Your task to perform on an android device: Do I have any events tomorrow? Image 0: 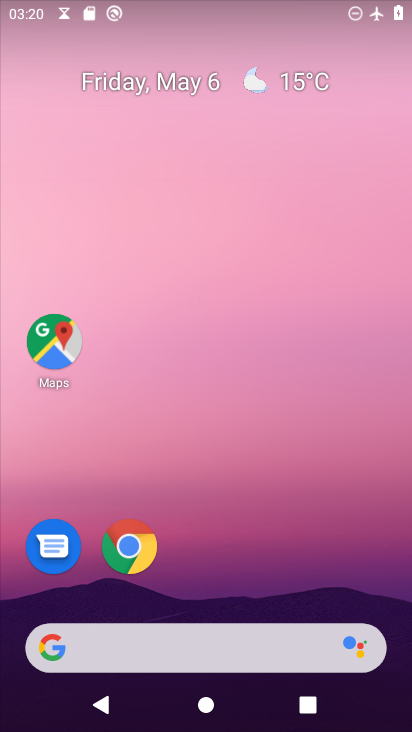
Step 0: click (180, 79)
Your task to perform on an android device: Do I have any events tomorrow? Image 1: 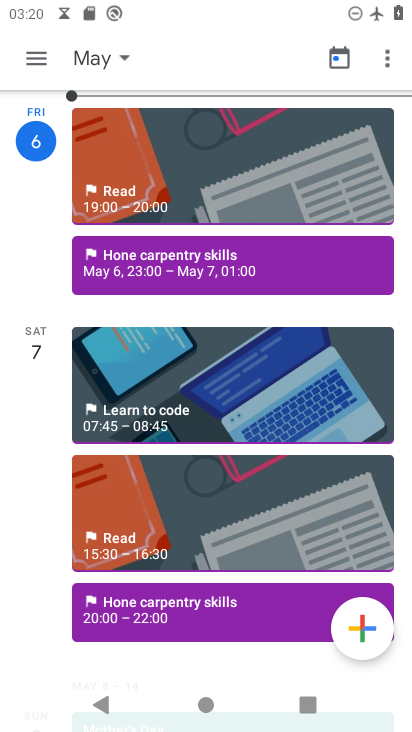
Step 1: drag from (163, 515) to (185, 207)
Your task to perform on an android device: Do I have any events tomorrow? Image 2: 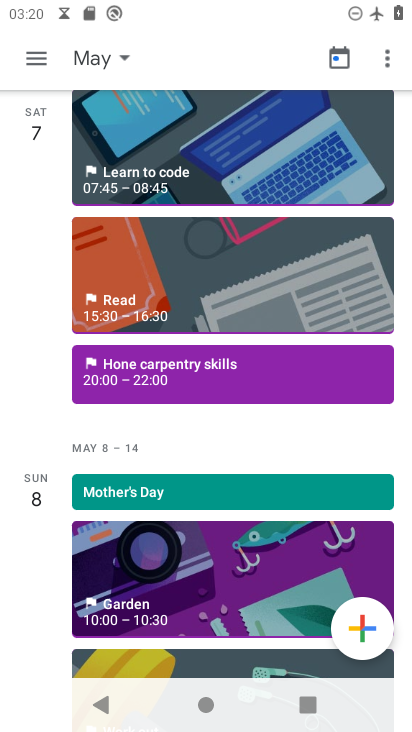
Step 2: click (44, 54)
Your task to perform on an android device: Do I have any events tomorrow? Image 3: 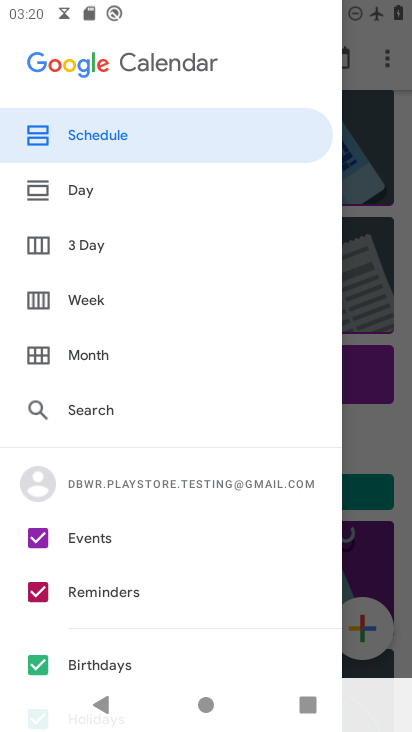
Step 3: click (45, 591)
Your task to perform on an android device: Do I have any events tomorrow? Image 4: 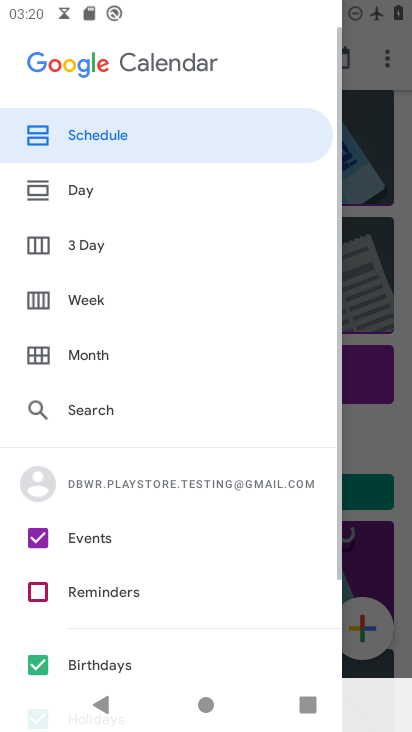
Step 4: click (37, 669)
Your task to perform on an android device: Do I have any events tomorrow? Image 5: 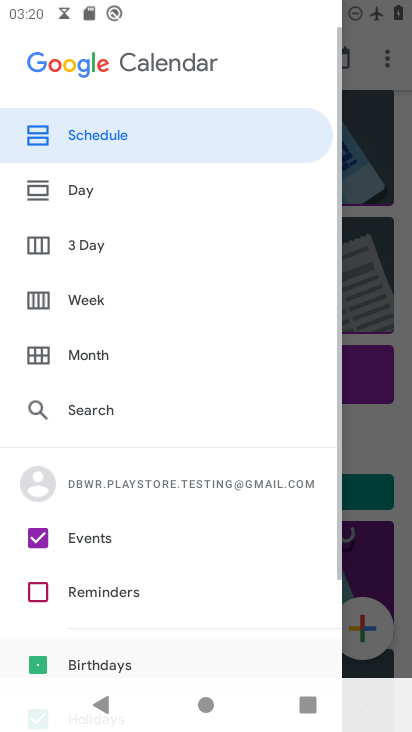
Step 5: click (224, 626)
Your task to perform on an android device: Do I have any events tomorrow? Image 6: 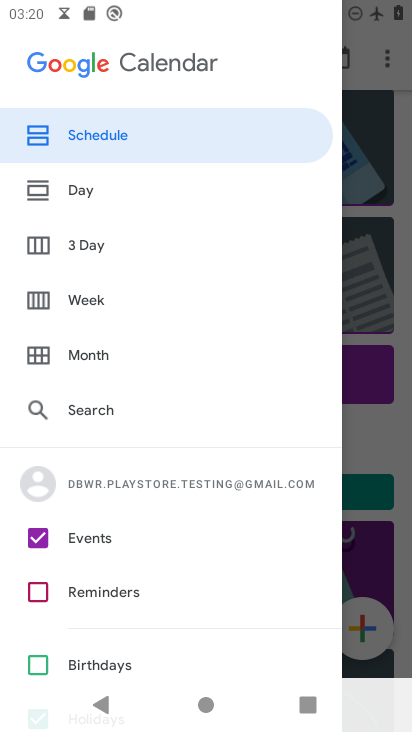
Step 6: drag from (134, 554) to (130, 269)
Your task to perform on an android device: Do I have any events tomorrow? Image 7: 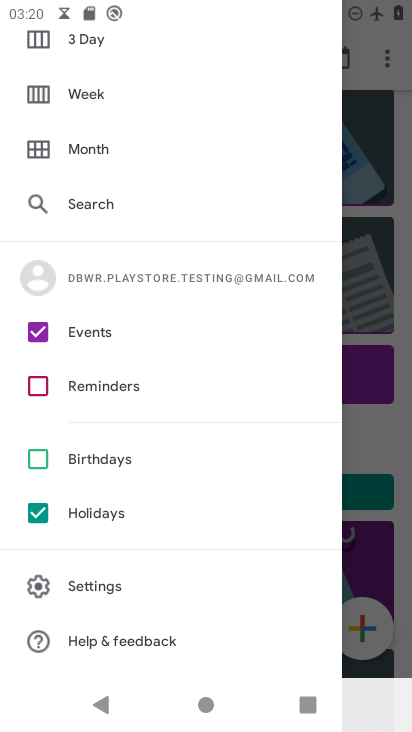
Step 7: click (44, 517)
Your task to perform on an android device: Do I have any events tomorrow? Image 8: 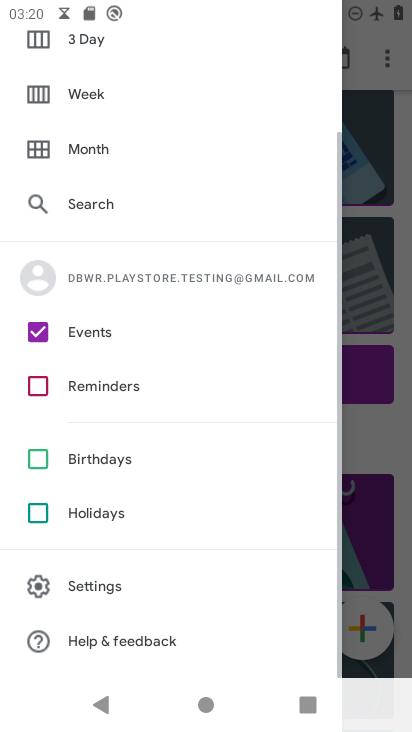
Step 8: click (400, 290)
Your task to perform on an android device: Do I have any events tomorrow? Image 9: 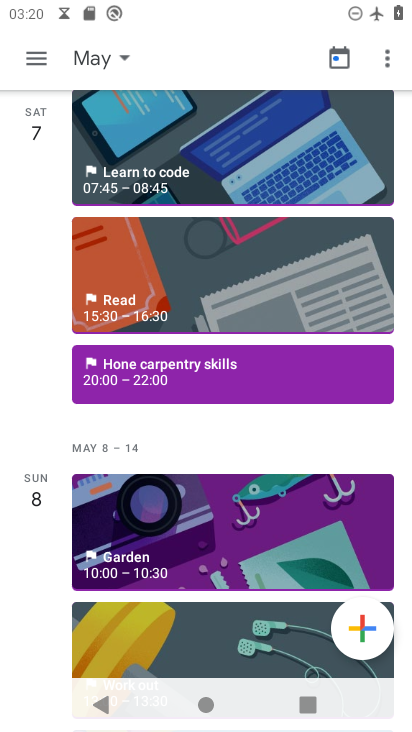
Step 9: task complete